Your task to perform on an android device: Open the stopwatch Image 0: 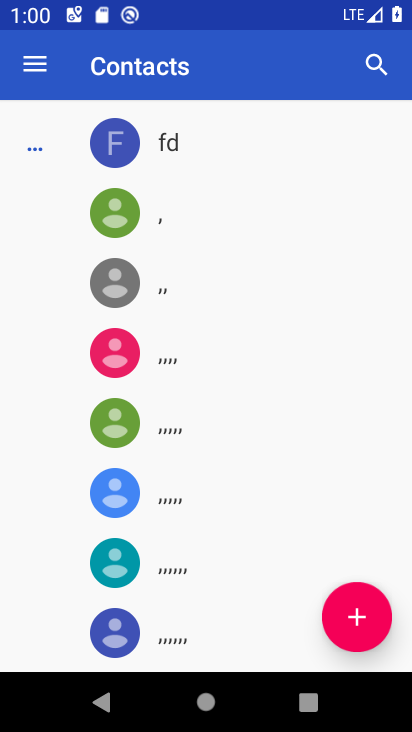
Step 0: press home button
Your task to perform on an android device: Open the stopwatch Image 1: 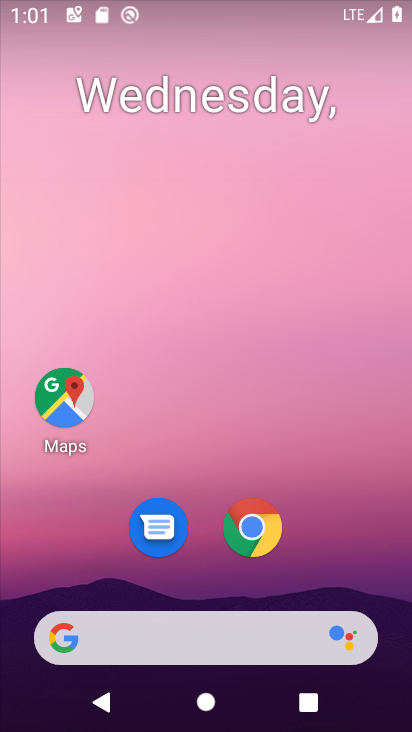
Step 1: drag from (231, 623) to (221, 2)
Your task to perform on an android device: Open the stopwatch Image 2: 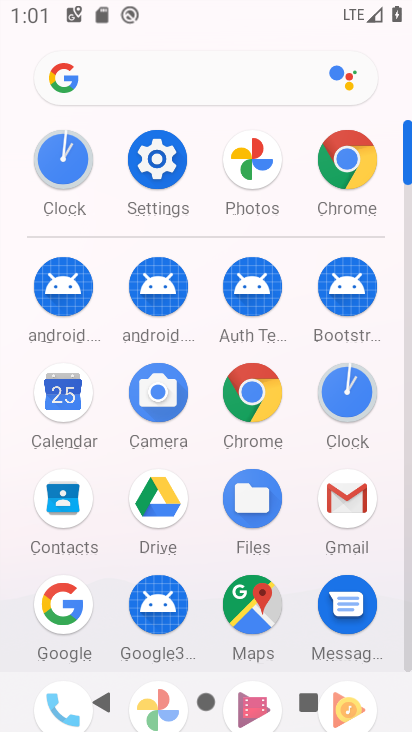
Step 2: drag from (189, 541) to (181, 223)
Your task to perform on an android device: Open the stopwatch Image 3: 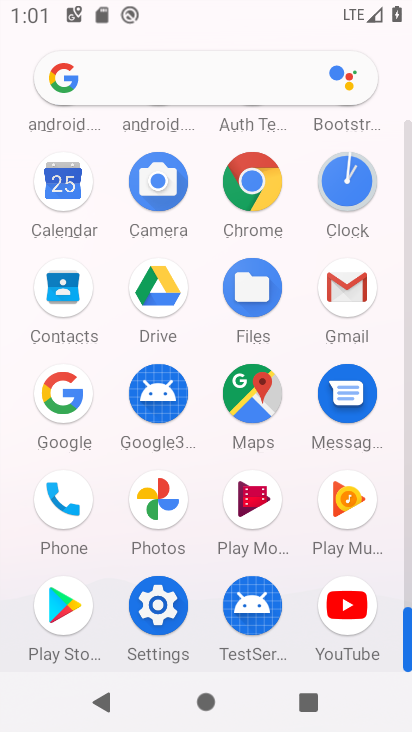
Step 3: click (357, 196)
Your task to perform on an android device: Open the stopwatch Image 4: 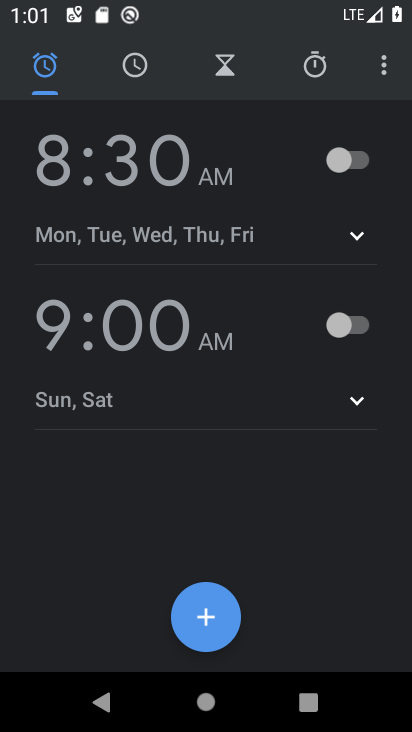
Step 4: click (310, 71)
Your task to perform on an android device: Open the stopwatch Image 5: 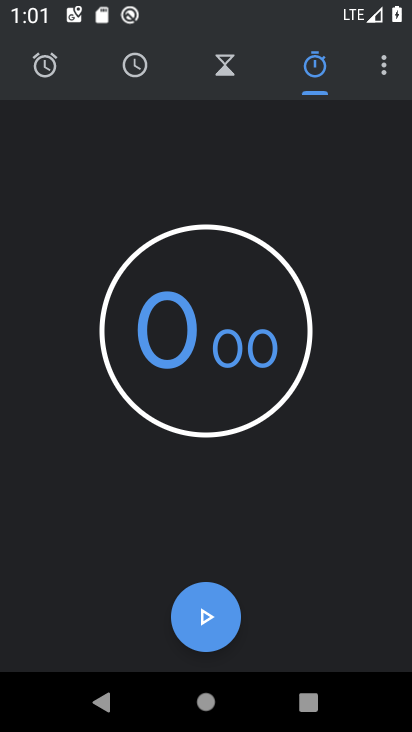
Step 5: click (220, 610)
Your task to perform on an android device: Open the stopwatch Image 6: 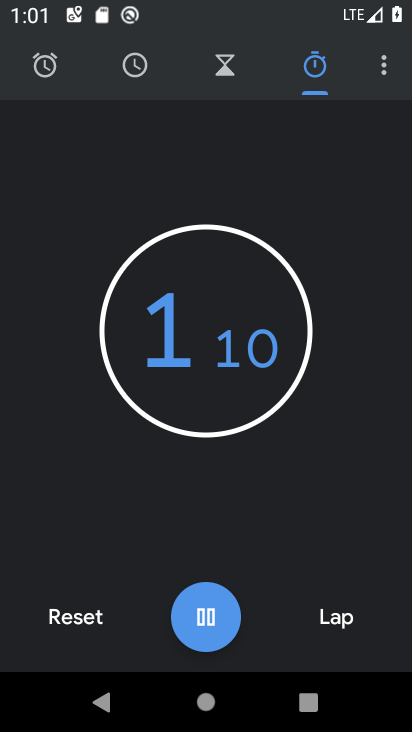
Step 6: task complete